Your task to perform on an android device: turn on data saver in the chrome app Image 0: 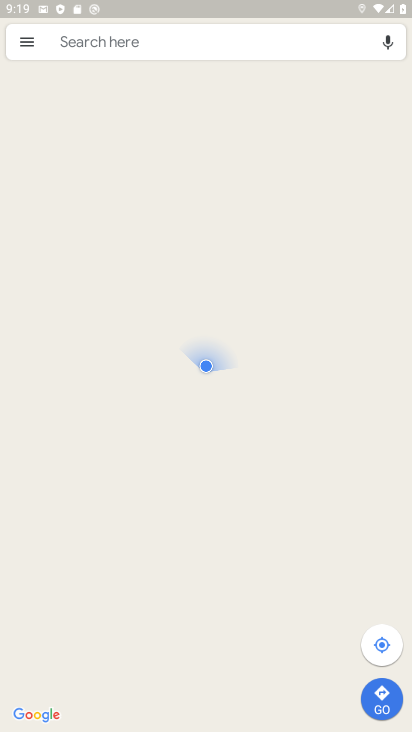
Step 0: press home button
Your task to perform on an android device: turn on data saver in the chrome app Image 1: 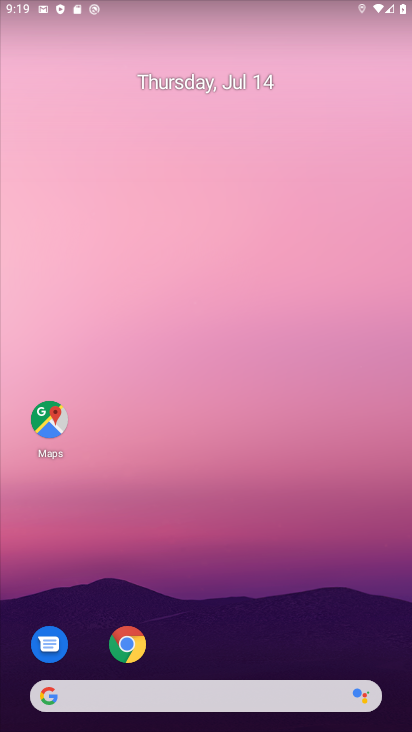
Step 1: click (127, 645)
Your task to perform on an android device: turn on data saver in the chrome app Image 2: 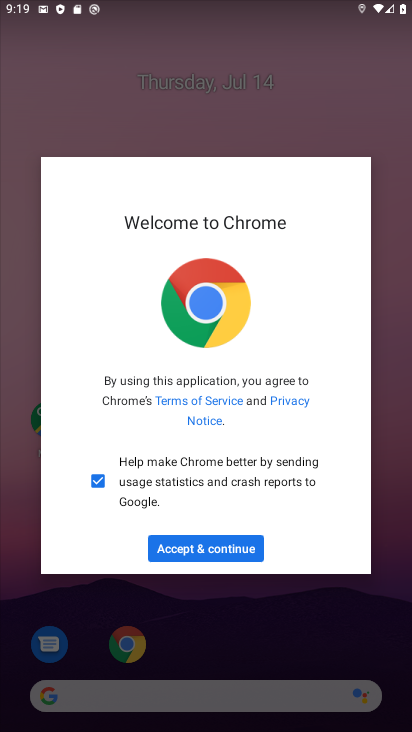
Step 2: click (248, 550)
Your task to perform on an android device: turn on data saver in the chrome app Image 3: 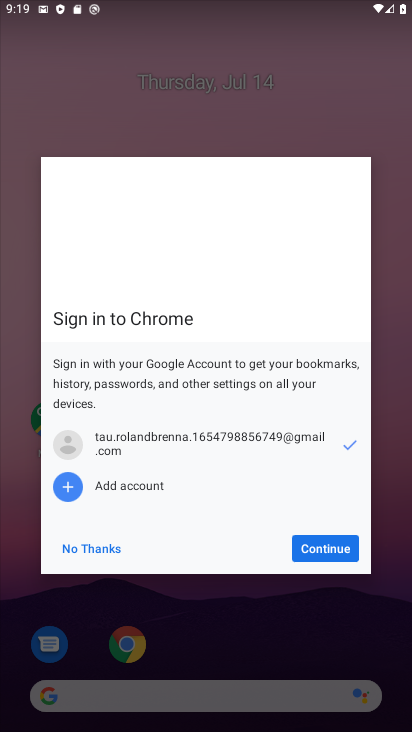
Step 3: click (311, 550)
Your task to perform on an android device: turn on data saver in the chrome app Image 4: 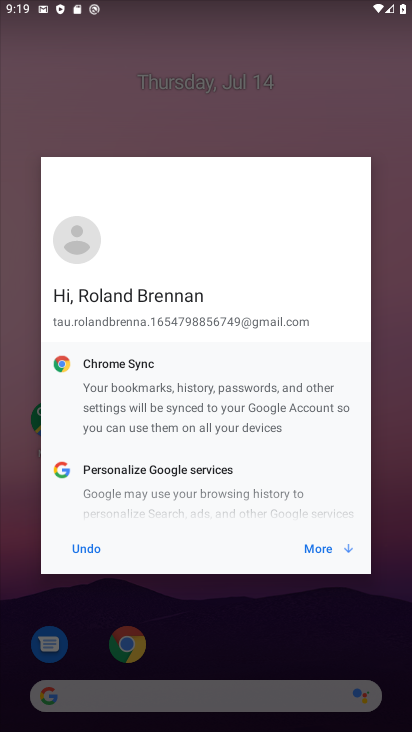
Step 4: click (322, 549)
Your task to perform on an android device: turn on data saver in the chrome app Image 5: 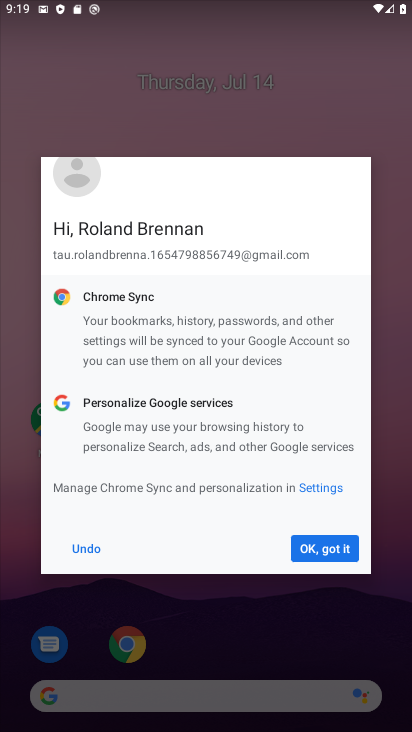
Step 5: click (322, 549)
Your task to perform on an android device: turn on data saver in the chrome app Image 6: 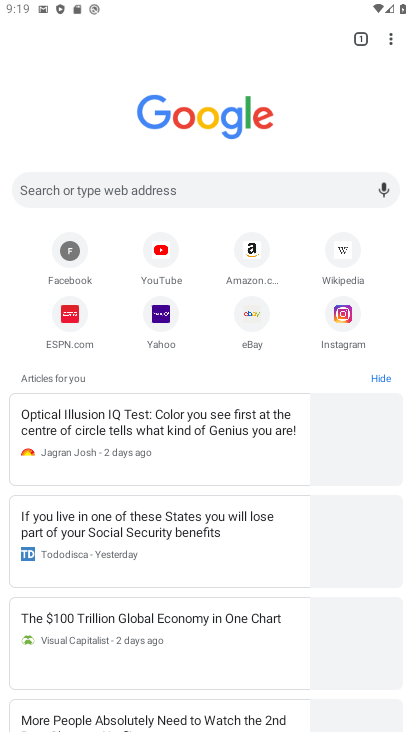
Step 6: click (378, 46)
Your task to perform on an android device: turn on data saver in the chrome app Image 7: 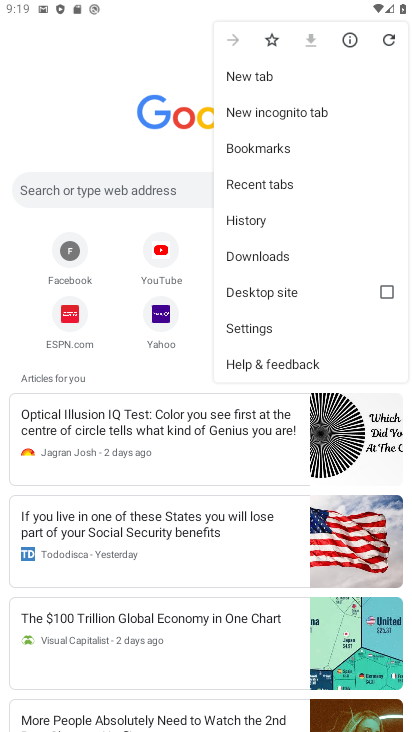
Step 7: click (270, 326)
Your task to perform on an android device: turn on data saver in the chrome app Image 8: 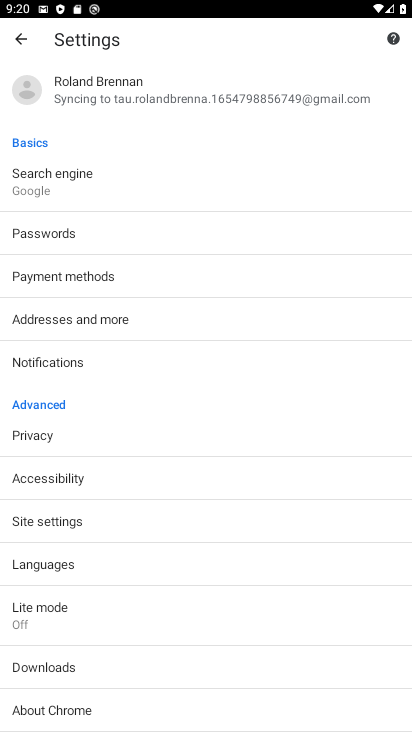
Step 8: click (66, 625)
Your task to perform on an android device: turn on data saver in the chrome app Image 9: 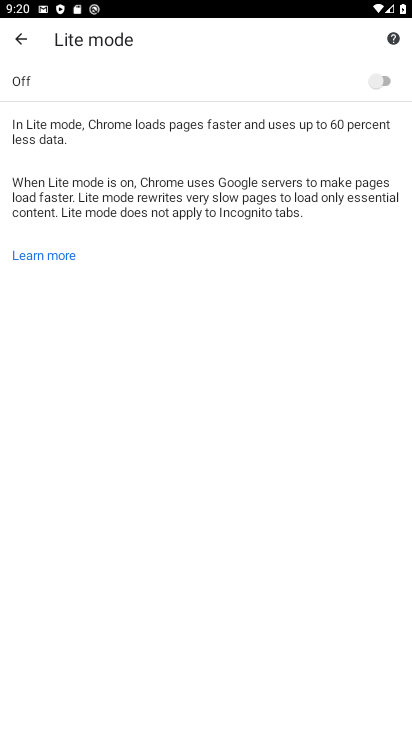
Step 9: click (383, 84)
Your task to perform on an android device: turn on data saver in the chrome app Image 10: 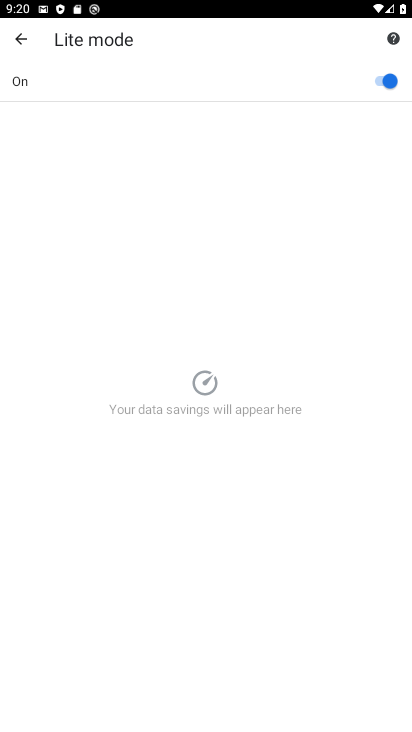
Step 10: task complete